Your task to perform on an android device: Toggle the flashlight Image 0: 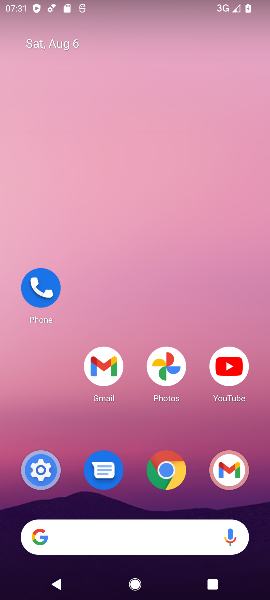
Step 0: press home button
Your task to perform on an android device: Toggle the flashlight Image 1: 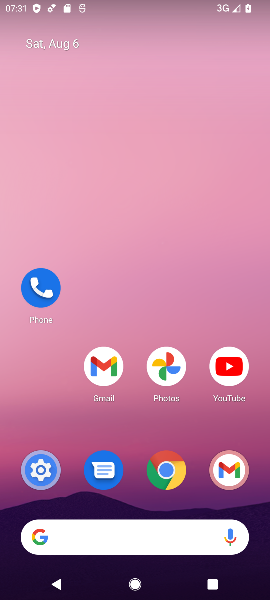
Step 1: task complete